Your task to perform on an android device: Go to display settings Image 0: 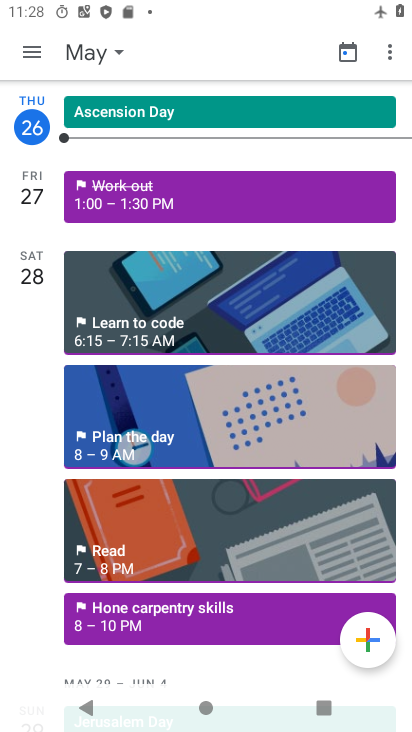
Step 0: press home button
Your task to perform on an android device: Go to display settings Image 1: 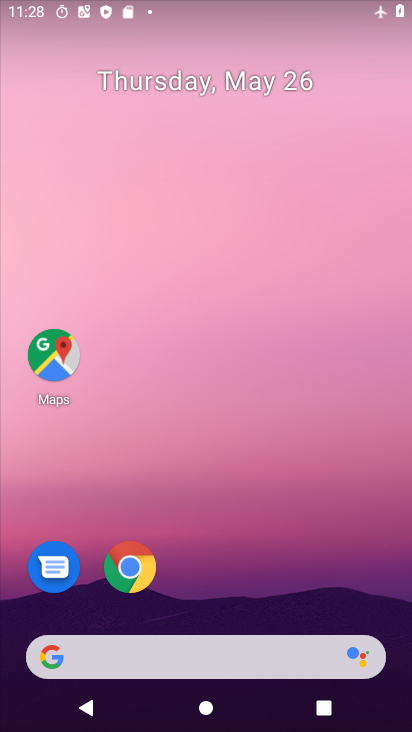
Step 1: drag from (239, 696) to (267, 166)
Your task to perform on an android device: Go to display settings Image 2: 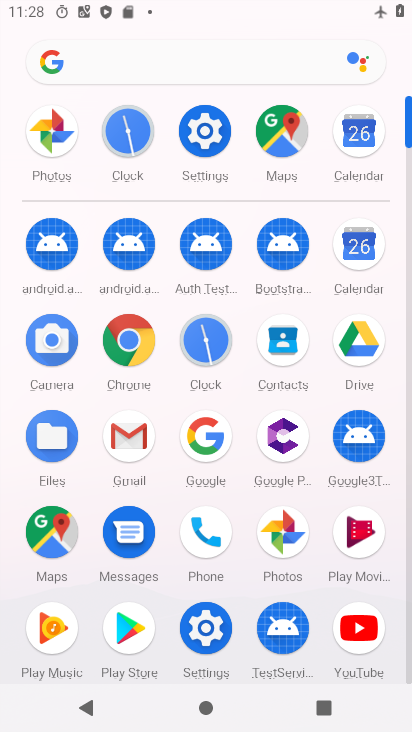
Step 2: click (213, 129)
Your task to perform on an android device: Go to display settings Image 3: 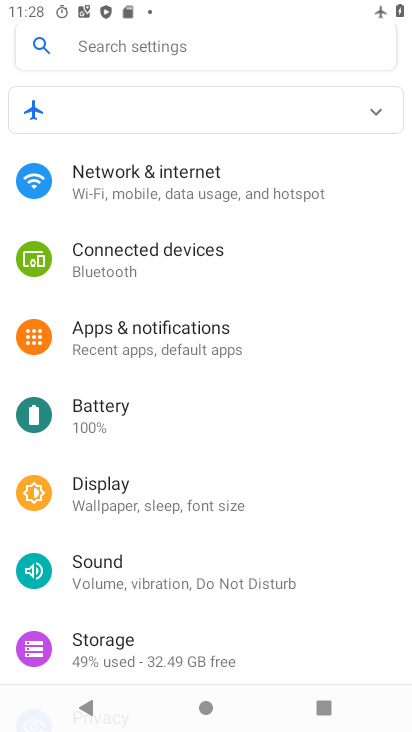
Step 3: click (185, 510)
Your task to perform on an android device: Go to display settings Image 4: 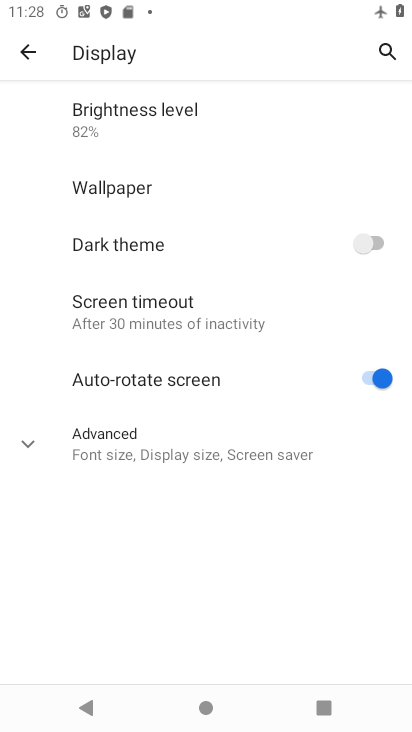
Step 4: task complete